Your task to perform on an android device: check google app version Image 0: 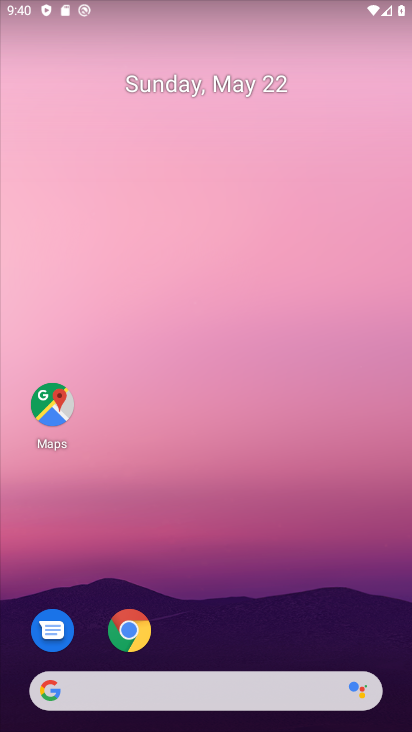
Step 0: drag from (398, 672) to (319, 189)
Your task to perform on an android device: check google app version Image 1: 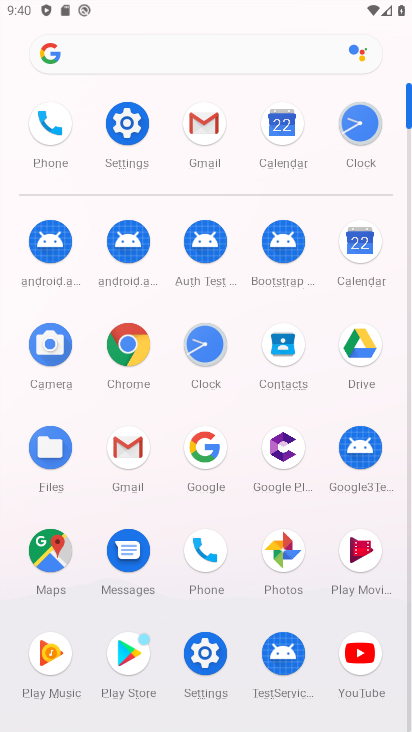
Step 1: click (216, 433)
Your task to perform on an android device: check google app version Image 2: 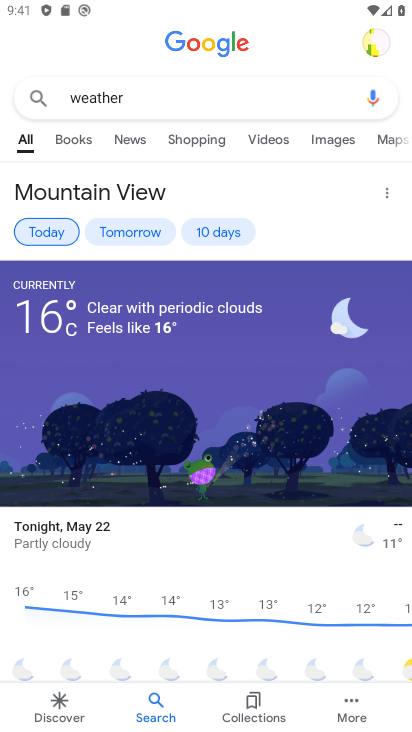
Step 2: click (337, 344)
Your task to perform on an android device: check google app version Image 3: 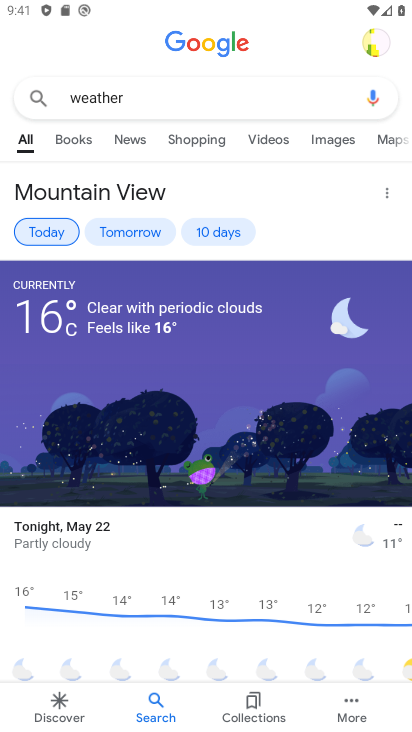
Step 3: click (342, 717)
Your task to perform on an android device: check google app version Image 4: 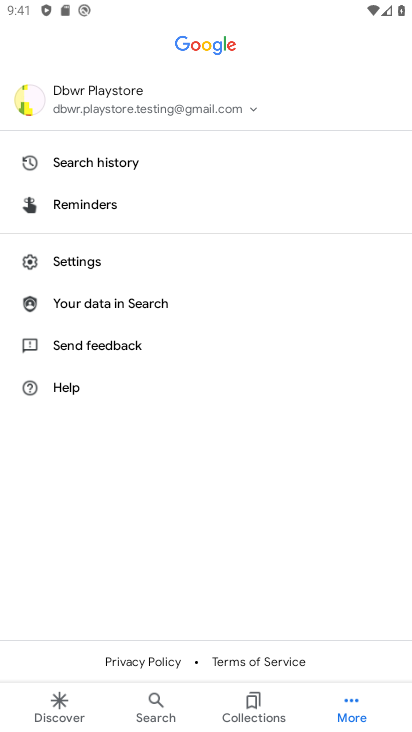
Step 4: click (83, 255)
Your task to perform on an android device: check google app version Image 5: 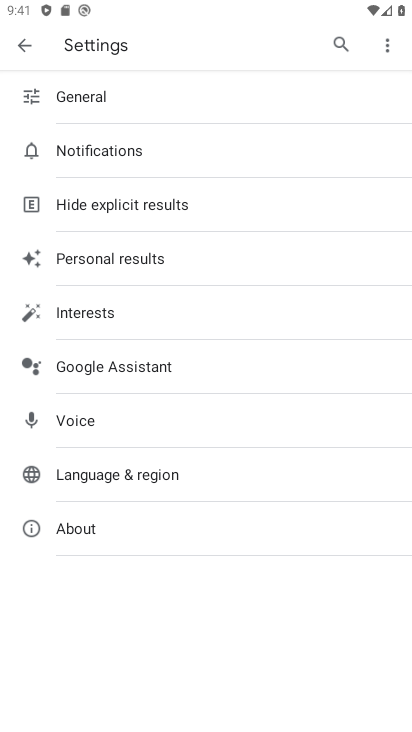
Step 5: click (91, 527)
Your task to perform on an android device: check google app version Image 6: 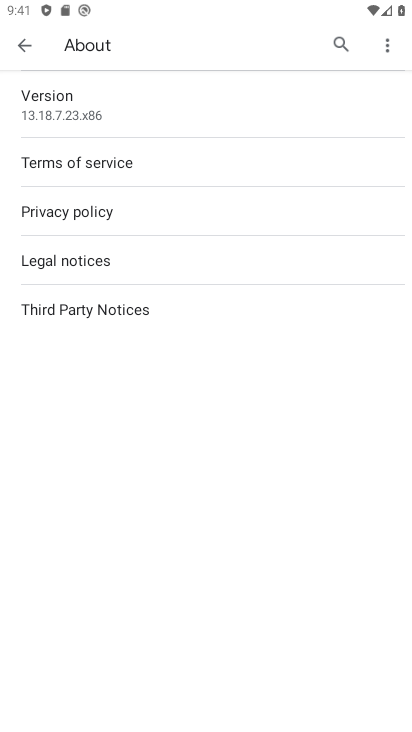
Step 6: click (99, 104)
Your task to perform on an android device: check google app version Image 7: 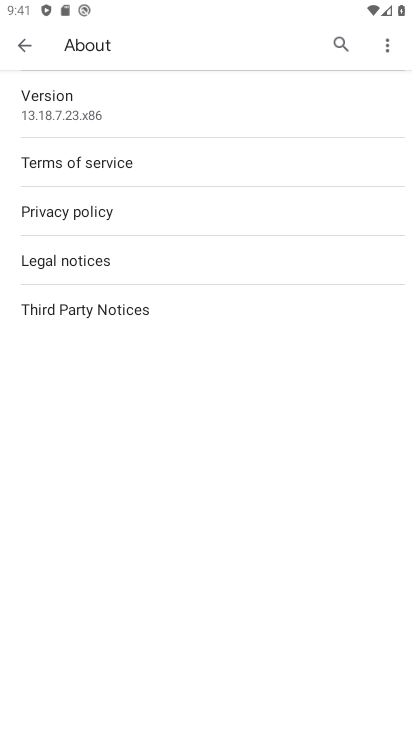
Step 7: click (94, 115)
Your task to perform on an android device: check google app version Image 8: 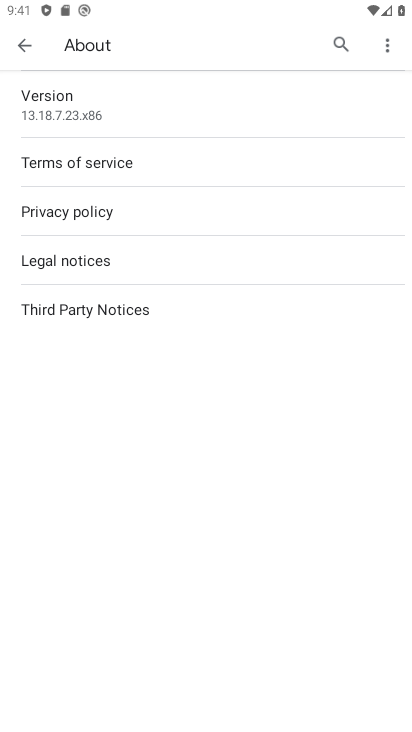
Step 8: task complete